Your task to perform on an android device: turn on location history Image 0: 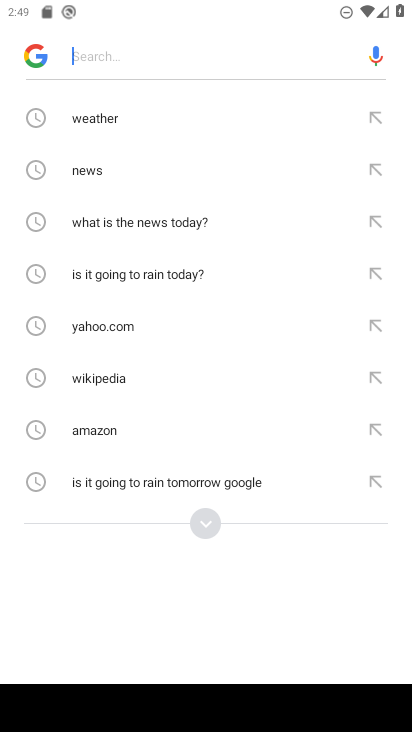
Step 0: press home button
Your task to perform on an android device: turn on location history Image 1: 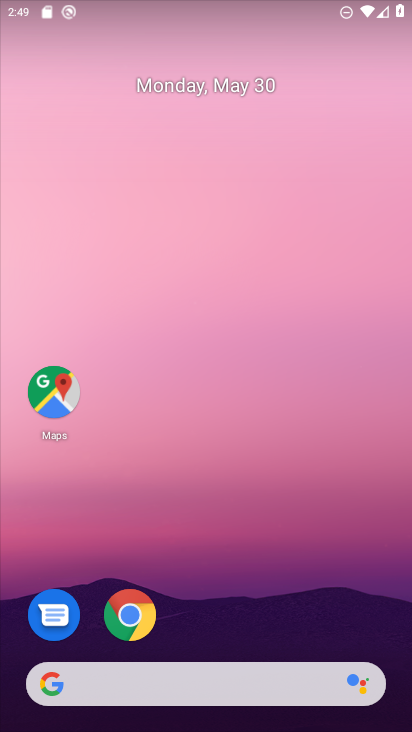
Step 1: drag from (217, 637) to (254, 96)
Your task to perform on an android device: turn on location history Image 2: 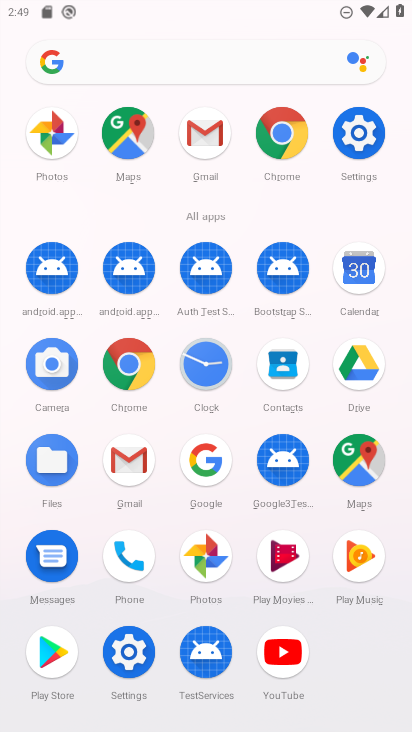
Step 2: drag from (159, 619) to (173, 455)
Your task to perform on an android device: turn on location history Image 3: 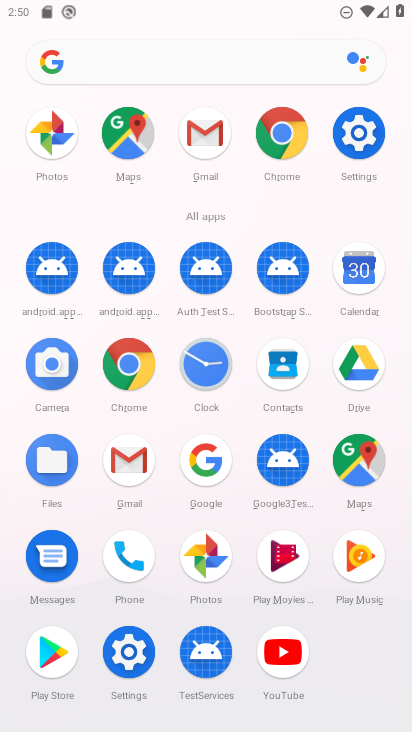
Step 3: click (122, 658)
Your task to perform on an android device: turn on location history Image 4: 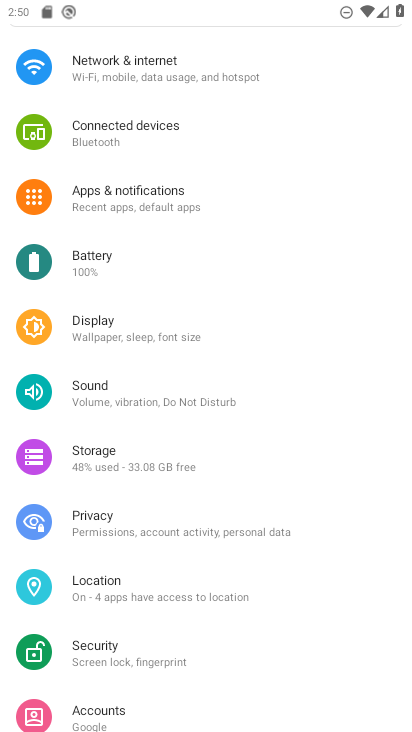
Step 4: click (156, 590)
Your task to perform on an android device: turn on location history Image 5: 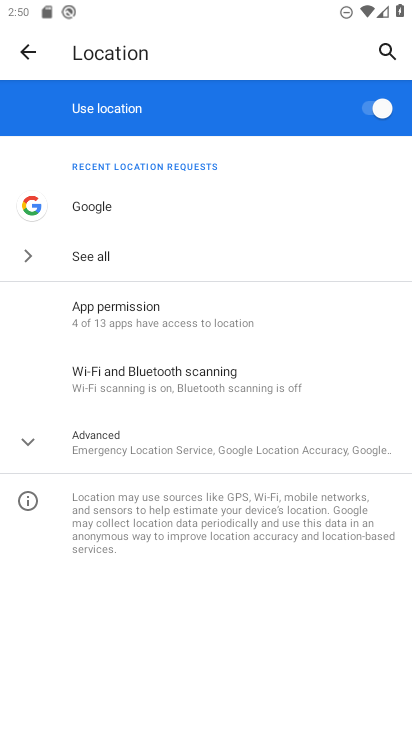
Step 5: click (214, 448)
Your task to perform on an android device: turn on location history Image 6: 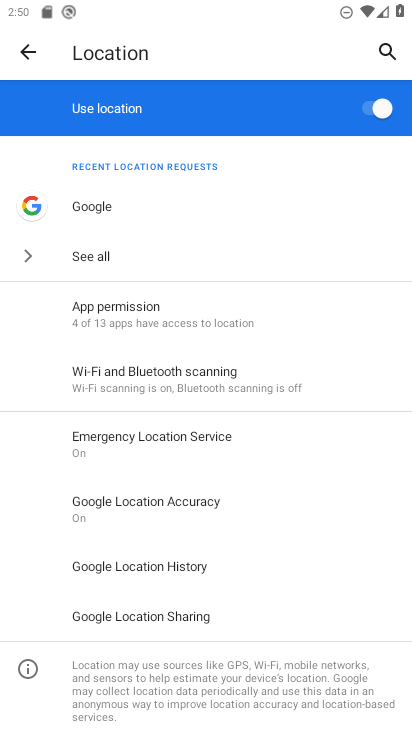
Step 6: click (230, 586)
Your task to perform on an android device: turn on location history Image 7: 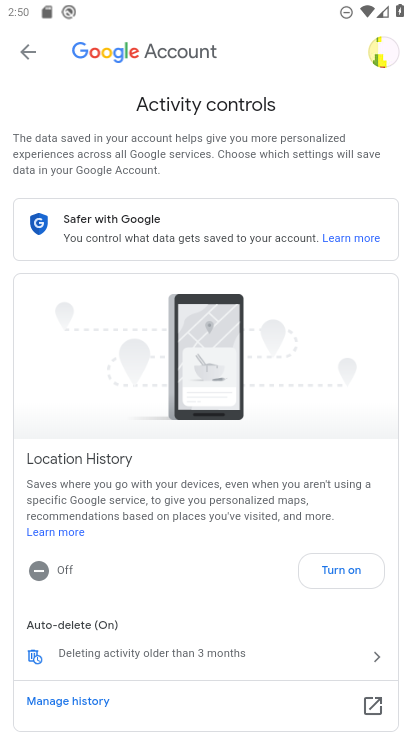
Step 7: click (361, 588)
Your task to perform on an android device: turn on location history Image 8: 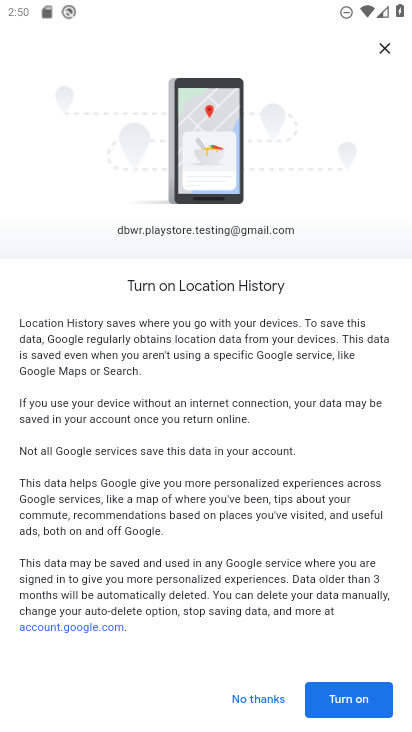
Step 8: click (368, 715)
Your task to perform on an android device: turn on location history Image 9: 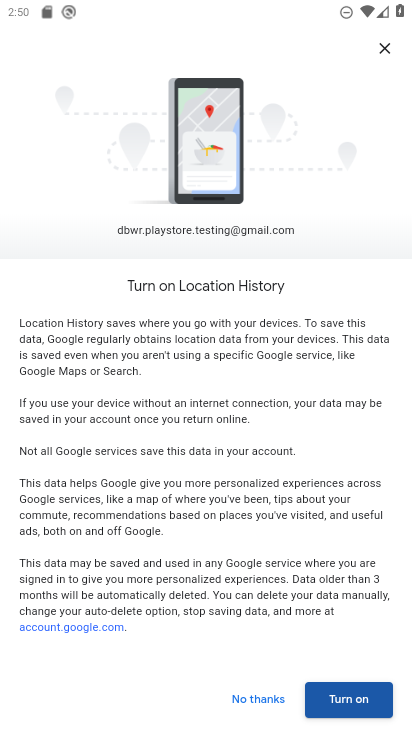
Step 9: click (367, 701)
Your task to perform on an android device: turn on location history Image 10: 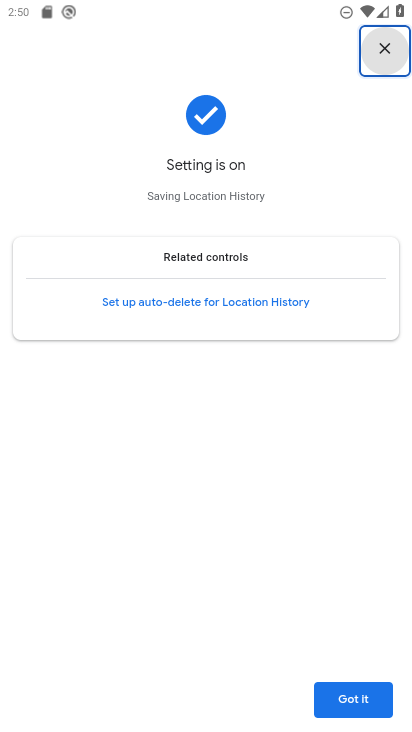
Step 10: click (367, 701)
Your task to perform on an android device: turn on location history Image 11: 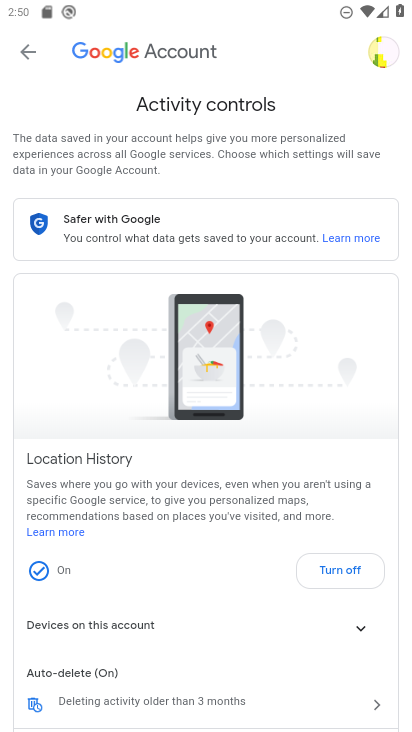
Step 11: task complete